Your task to perform on an android device: change the clock display to analog Image 0: 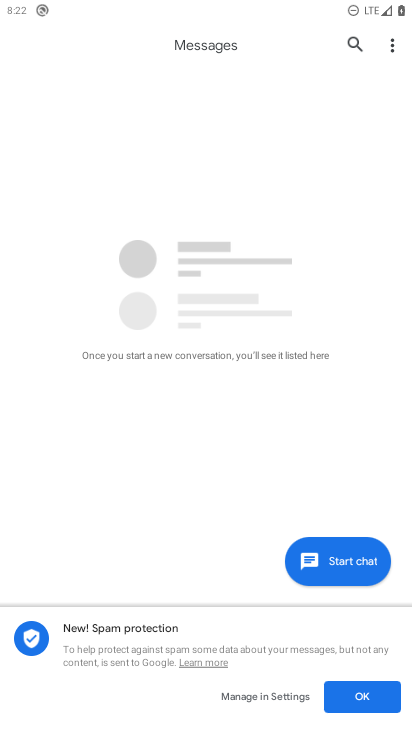
Step 0: press home button
Your task to perform on an android device: change the clock display to analog Image 1: 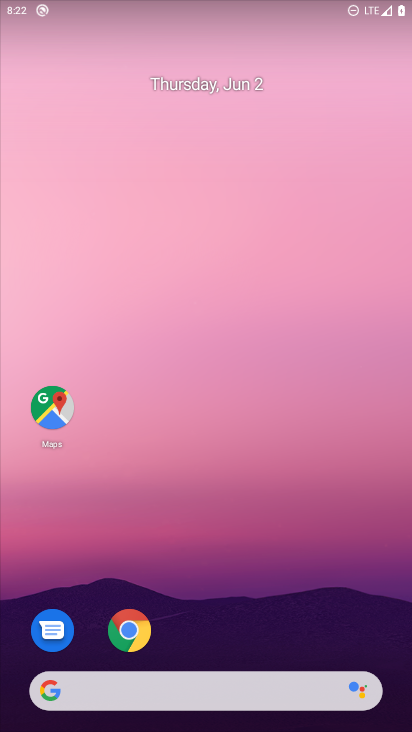
Step 1: drag from (137, 729) to (240, 0)
Your task to perform on an android device: change the clock display to analog Image 2: 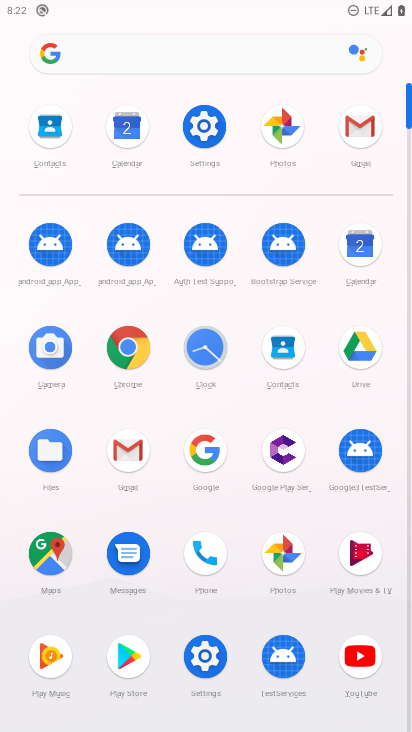
Step 2: click (198, 358)
Your task to perform on an android device: change the clock display to analog Image 3: 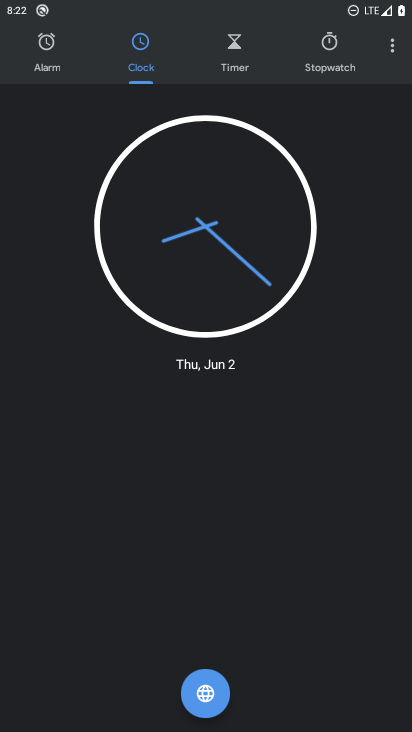
Step 3: click (393, 39)
Your task to perform on an android device: change the clock display to analog Image 4: 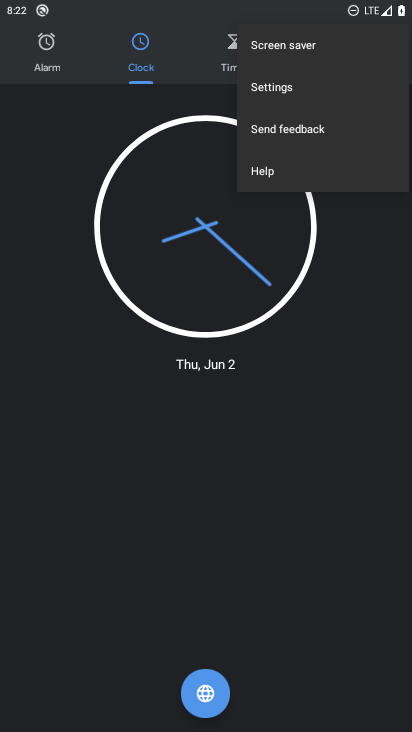
Step 4: click (319, 106)
Your task to perform on an android device: change the clock display to analog Image 5: 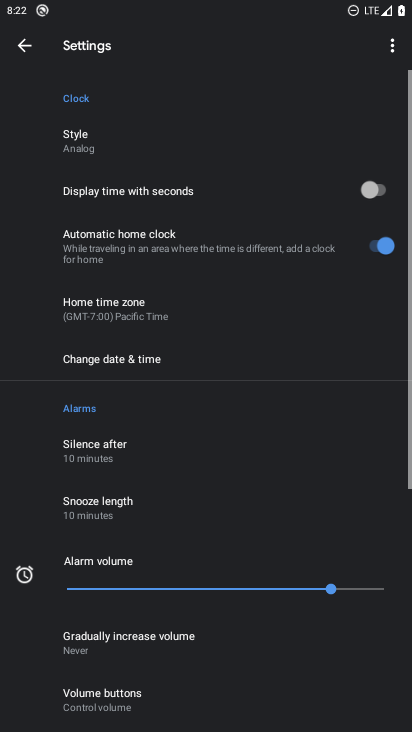
Step 5: click (113, 162)
Your task to perform on an android device: change the clock display to analog Image 6: 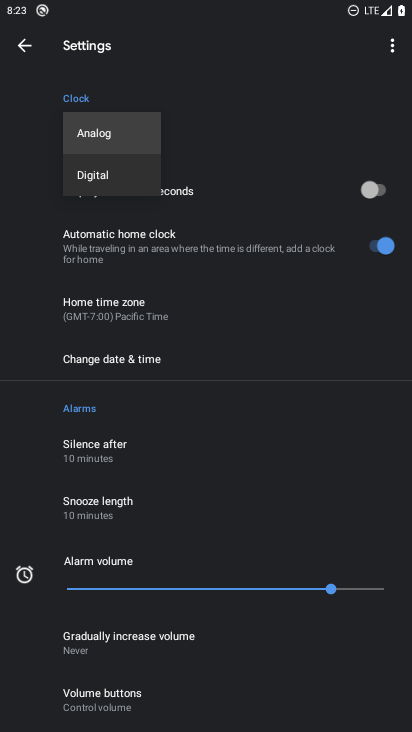
Step 6: task complete